Your task to perform on an android device: Check the news Image 0: 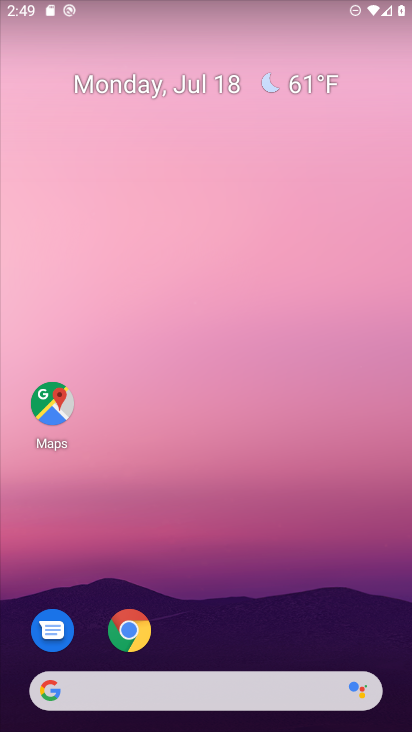
Step 0: drag from (258, 565) to (314, 41)
Your task to perform on an android device: Check the news Image 1: 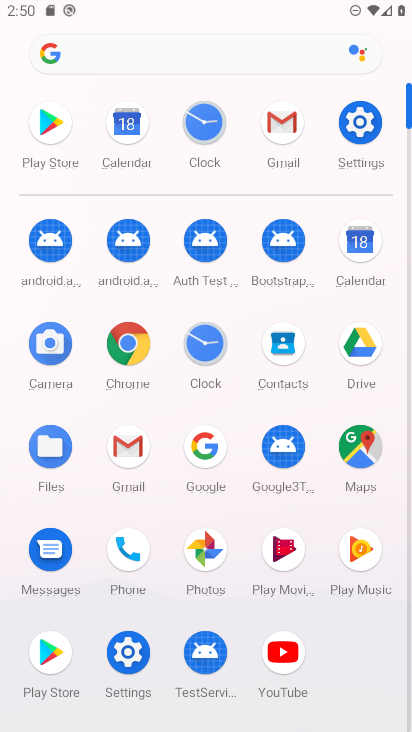
Step 1: click (213, 50)
Your task to perform on an android device: Check the news Image 2: 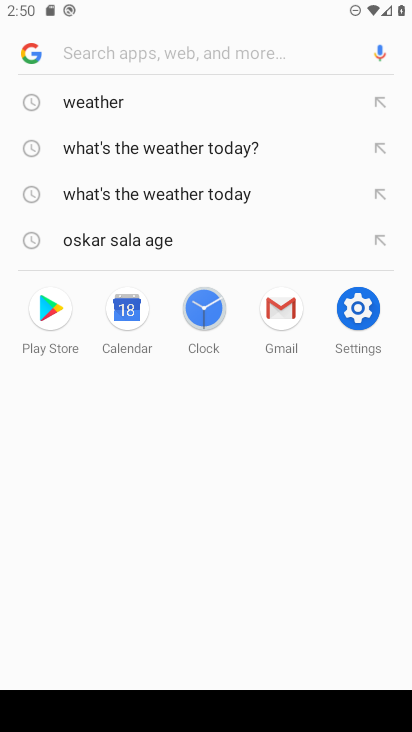
Step 2: type "News"
Your task to perform on an android device: Check the news Image 3: 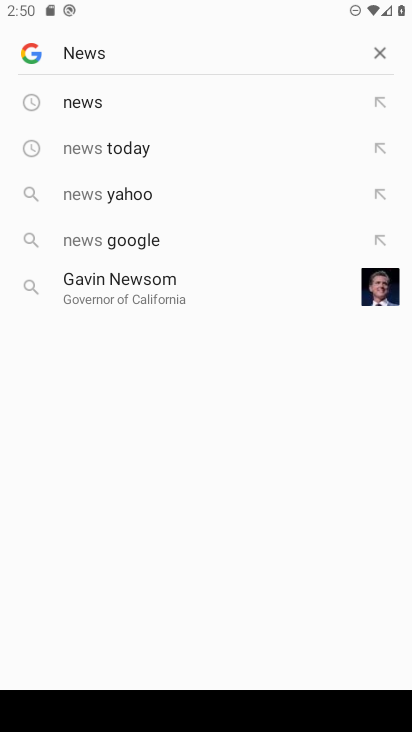
Step 3: click (91, 100)
Your task to perform on an android device: Check the news Image 4: 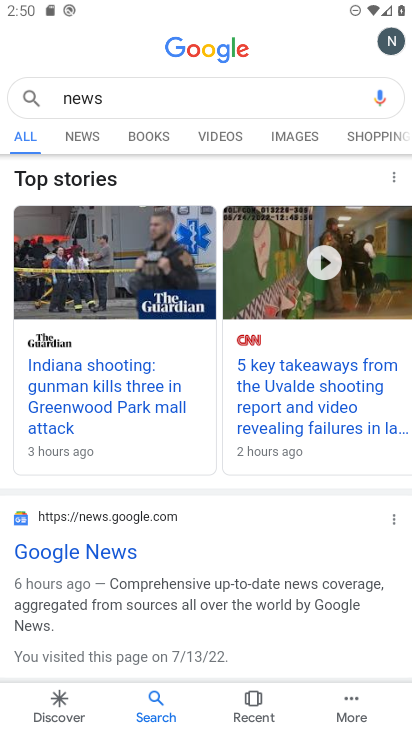
Step 4: task complete